Your task to perform on an android device: Show me the alarms in the clock app Image 0: 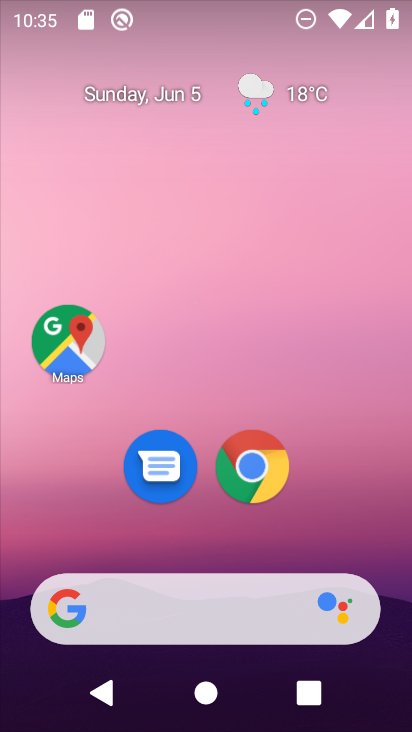
Step 0: drag from (344, 495) to (287, 13)
Your task to perform on an android device: Show me the alarms in the clock app Image 1: 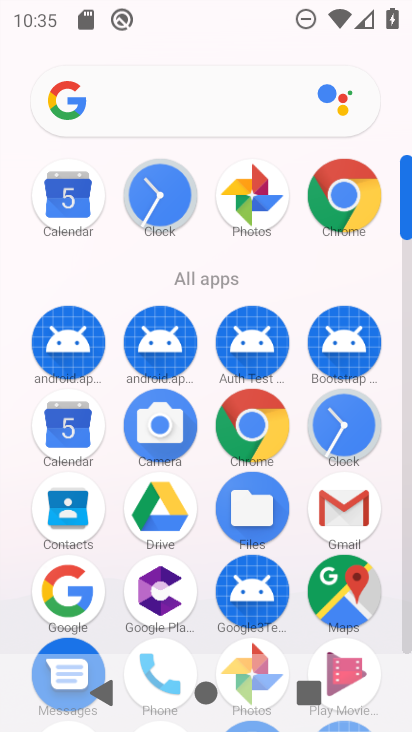
Step 1: drag from (10, 548) to (30, 236)
Your task to perform on an android device: Show me the alarms in the clock app Image 2: 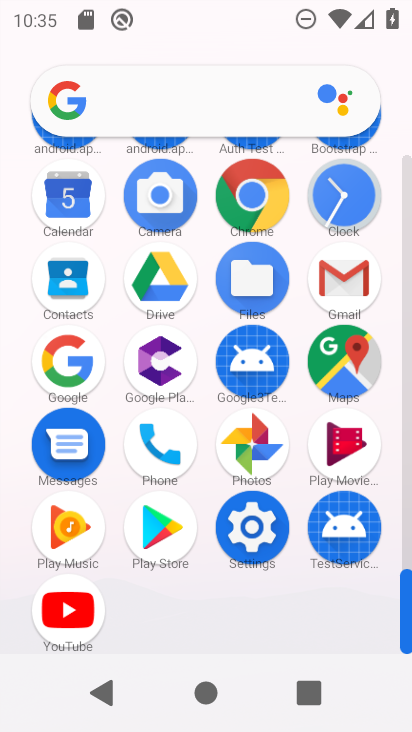
Step 2: click (344, 195)
Your task to perform on an android device: Show me the alarms in the clock app Image 3: 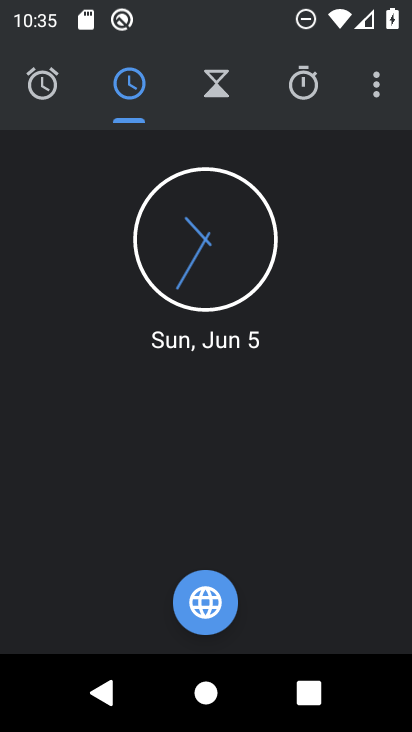
Step 3: drag from (373, 83) to (316, 155)
Your task to perform on an android device: Show me the alarms in the clock app Image 4: 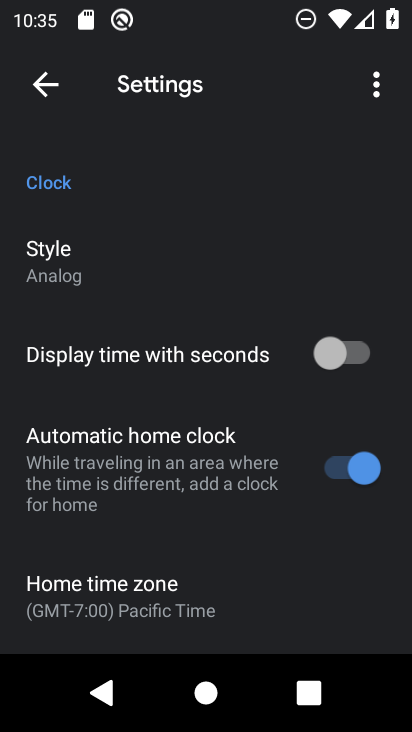
Step 4: click (54, 83)
Your task to perform on an android device: Show me the alarms in the clock app Image 5: 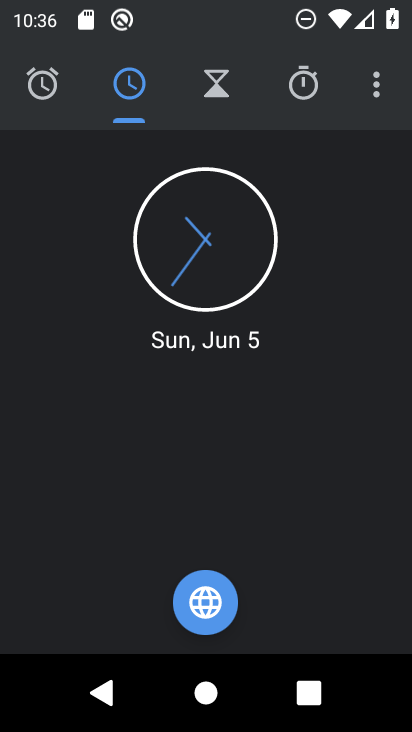
Step 5: click (54, 82)
Your task to perform on an android device: Show me the alarms in the clock app Image 6: 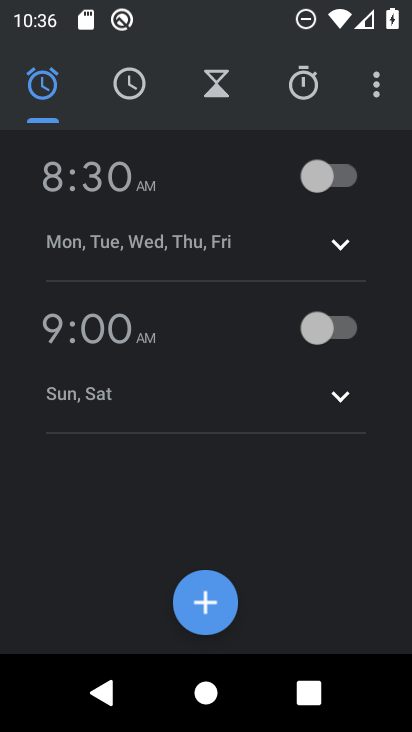
Step 6: task complete